Your task to perform on an android device: open app "ZOOM Cloud Meetings" (install if not already installed) and go to login screen Image 0: 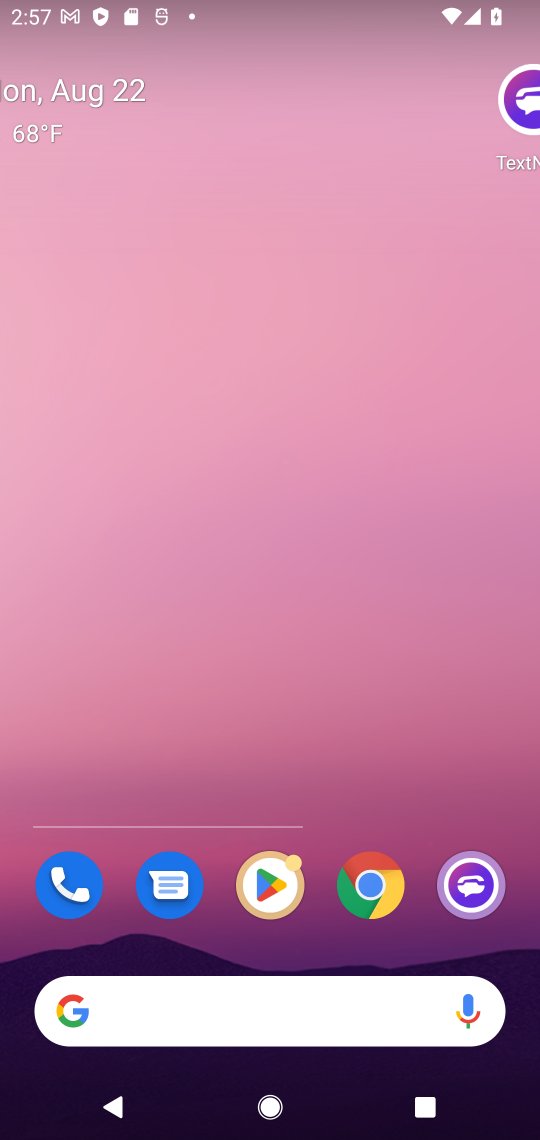
Step 0: press home button
Your task to perform on an android device: open app "ZOOM Cloud Meetings" (install if not already installed) and go to login screen Image 1: 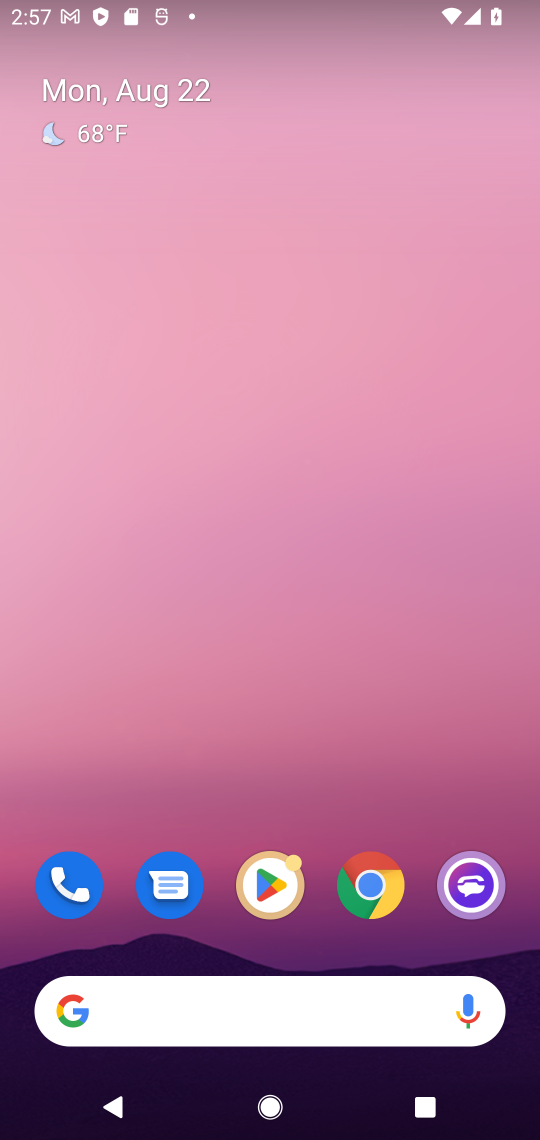
Step 1: drag from (330, 832) to (325, 0)
Your task to perform on an android device: open app "ZOOM Cloud Meetings" (install if not already installed) and go to login screen Image 2: 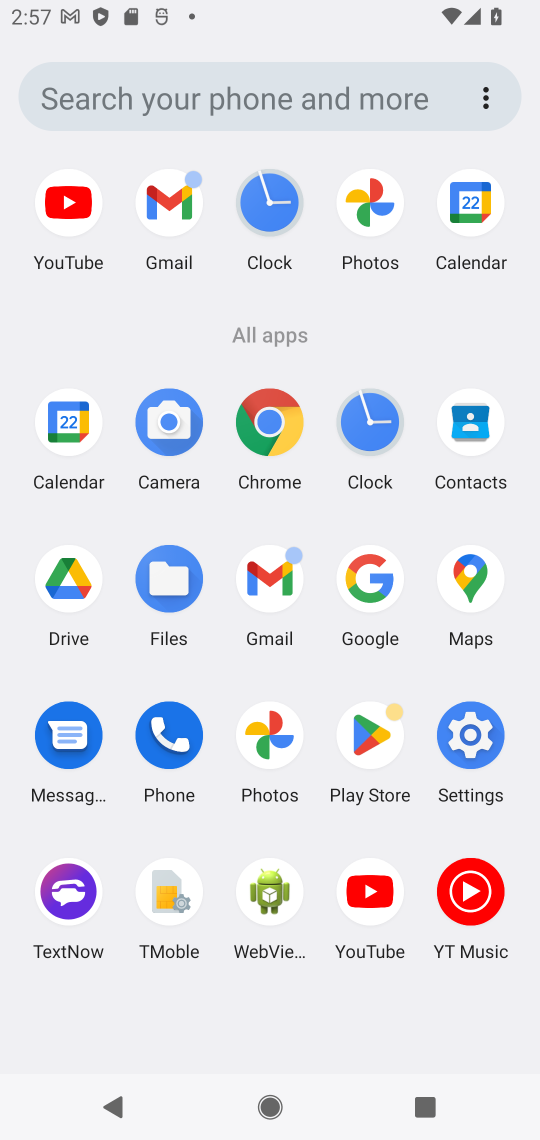
Step 2: click (359, 726)
Your task to perform on an android device: open app "ZOOM Cloud Meetings" (install if not already installed) and go to login screen Image 3: 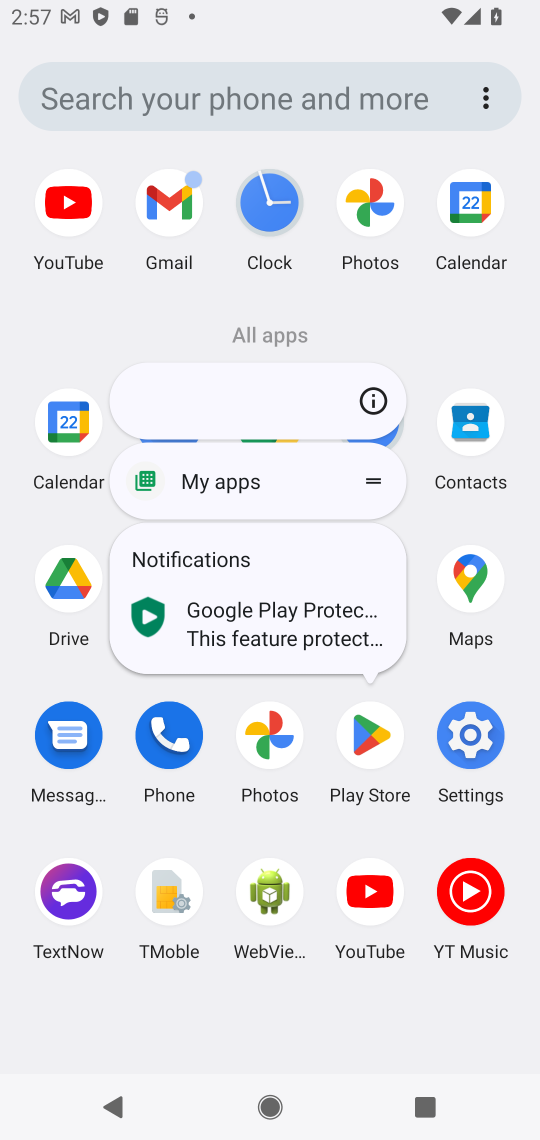
Step 3: click (363, 723)
Your task to perform on an android device: open app "ZOOM Cloud Meetings" (install if not already installed) and go to login screen Image 4: 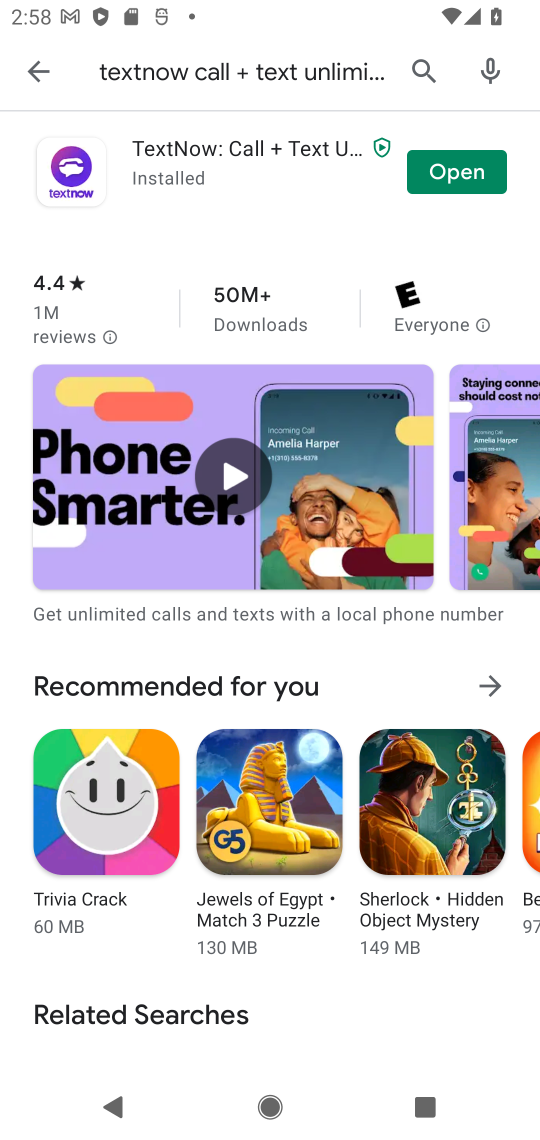
Step 4: click (417, 60)
Your task to perform on an android device: open app "ZOOM Cloud Meetings" (install if not already installed) and go to login screen Image 5: 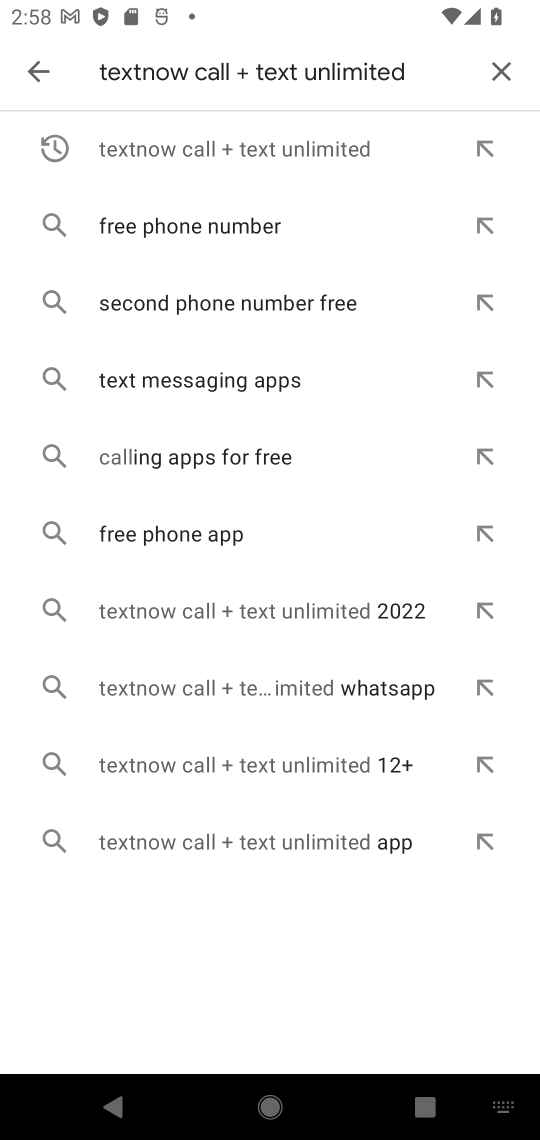
Step 5: click (504, 72)
Your task to perform on an android device: open app "ZOOM Cloud Meetings" (install if not already installed) and go to login screen Image 6: 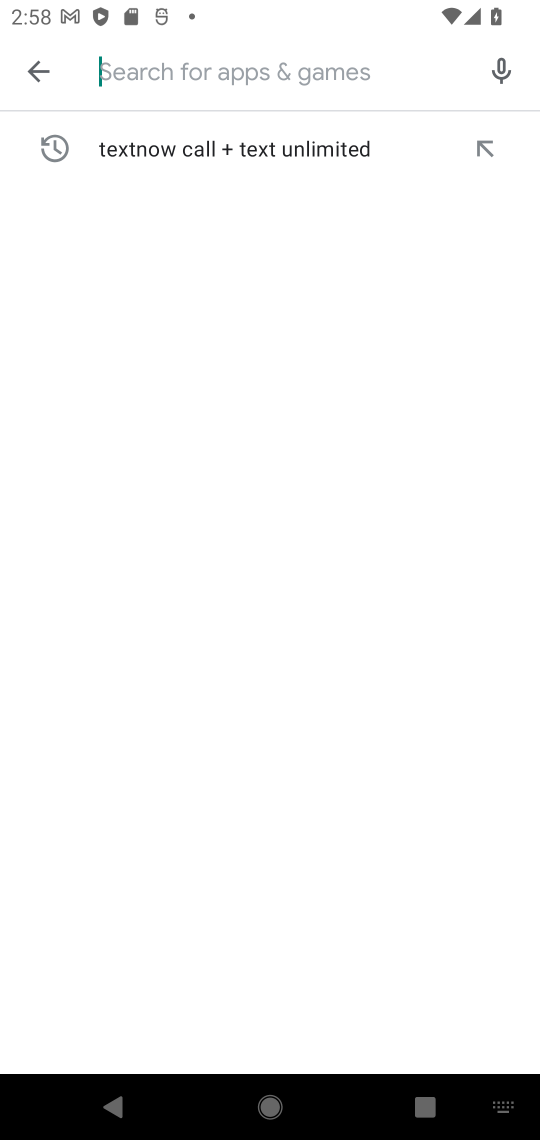
Step 6: type "ZOOM Cloud Meetings"
Your task to perform on an android device: open app "ZOOM Cloud Meetings" (install if not already installed) and go to login screen Image 7: 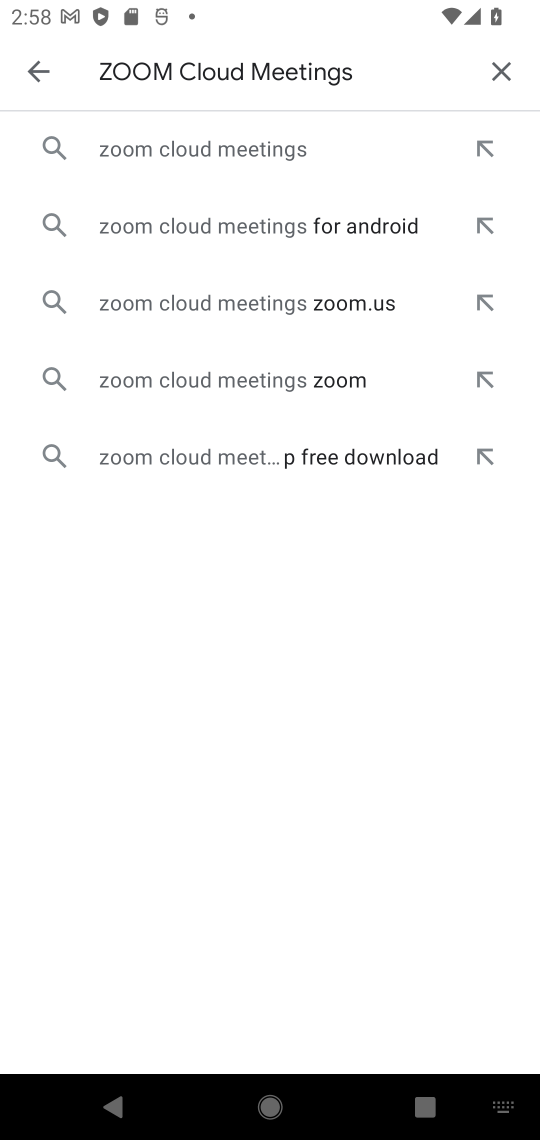
Step 7: click (228, 145)
Your task to perform on an android device: open app "ZOOM Cloud Meetings" (install if not already installed) and go to login screen Image 8: 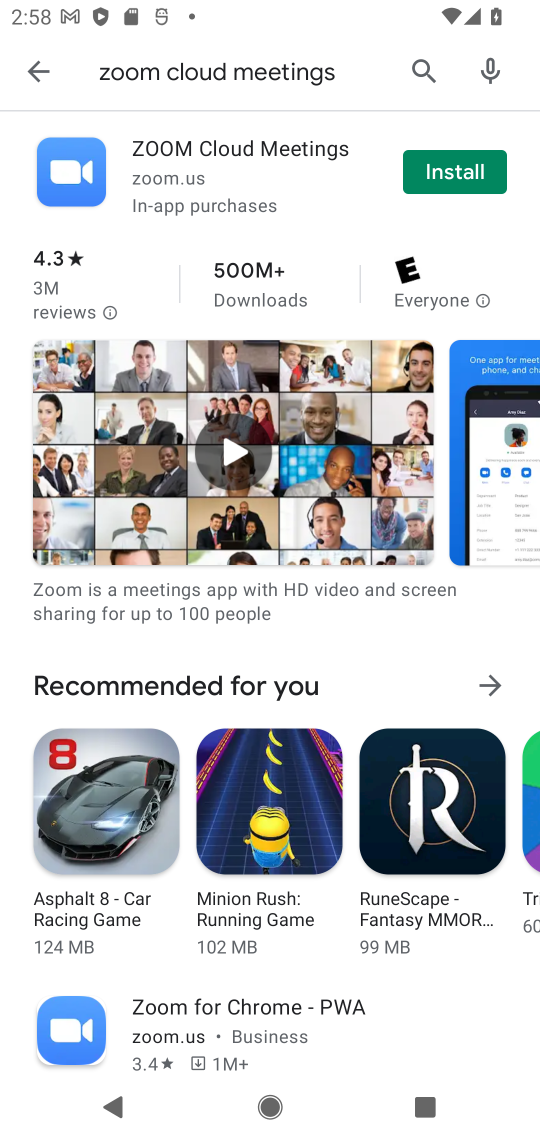
Step 8: click (455, 160)
Your task to perform on an android device: open app "ZOOM Cloud Meetings" (install if not already installed) and go to login screen Image 9: 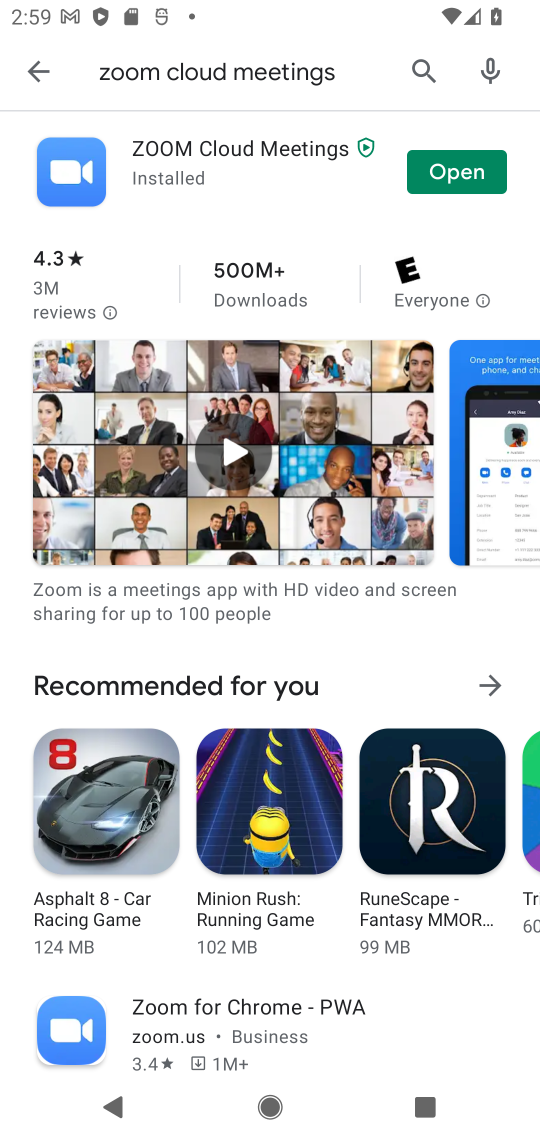
Step 9: click (472, 176)
Your task to perform on an android device: open app "ZOOM Cloud Meetings" (install if not already installed) and go to login screen Image 10: 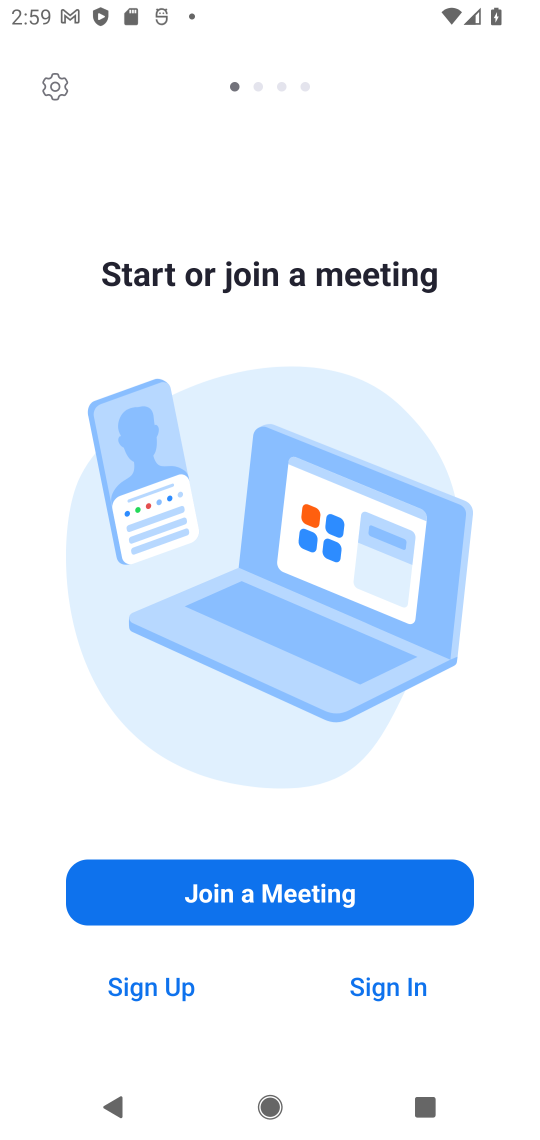
Step 10: click (388, 990)
Your task to perform on an android device: open app "ZOOM Cloud Meetings" (install if not already installed) and go to login screen Image 11: 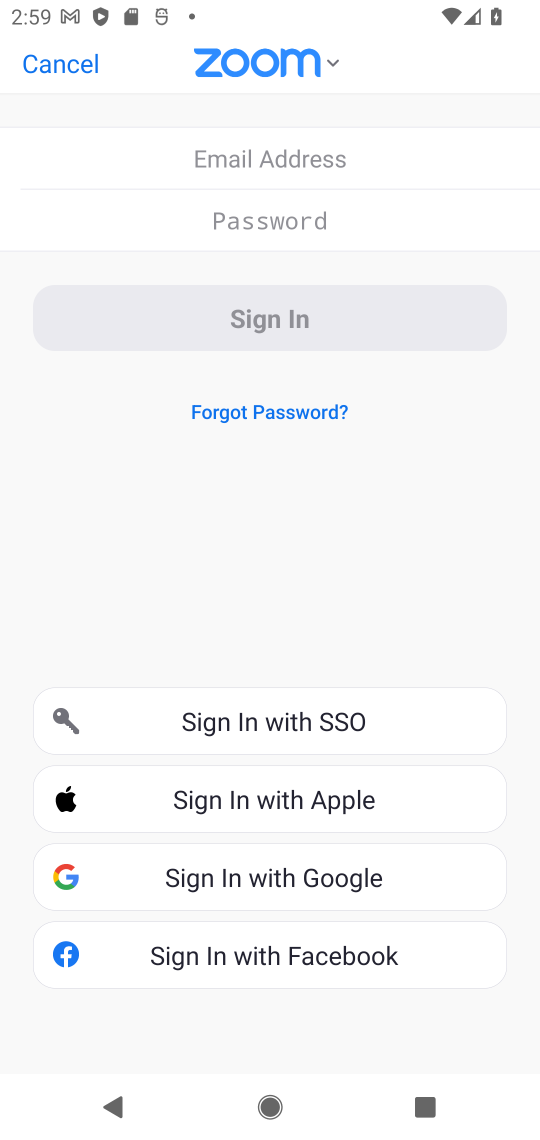
Step 11: click (265, 870)
Your task to perform on an android device: open app "ZOOM Cloud Meetings" (install if not already installed) and go to login screen Image 12: 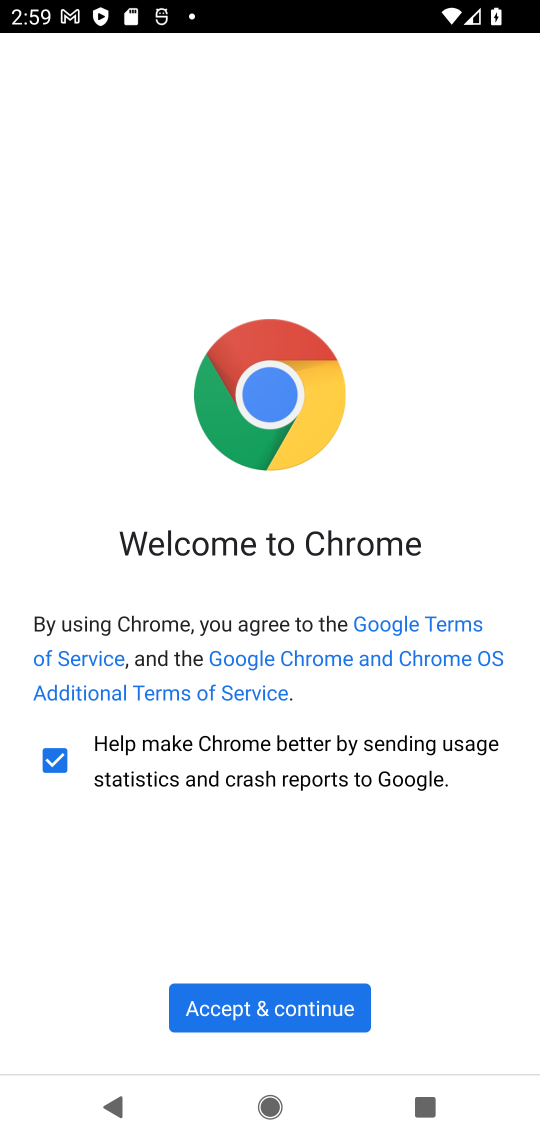
Step 12: task complete